Your task to perform on an android device: uninstall "Messenger Lite" Image 0: 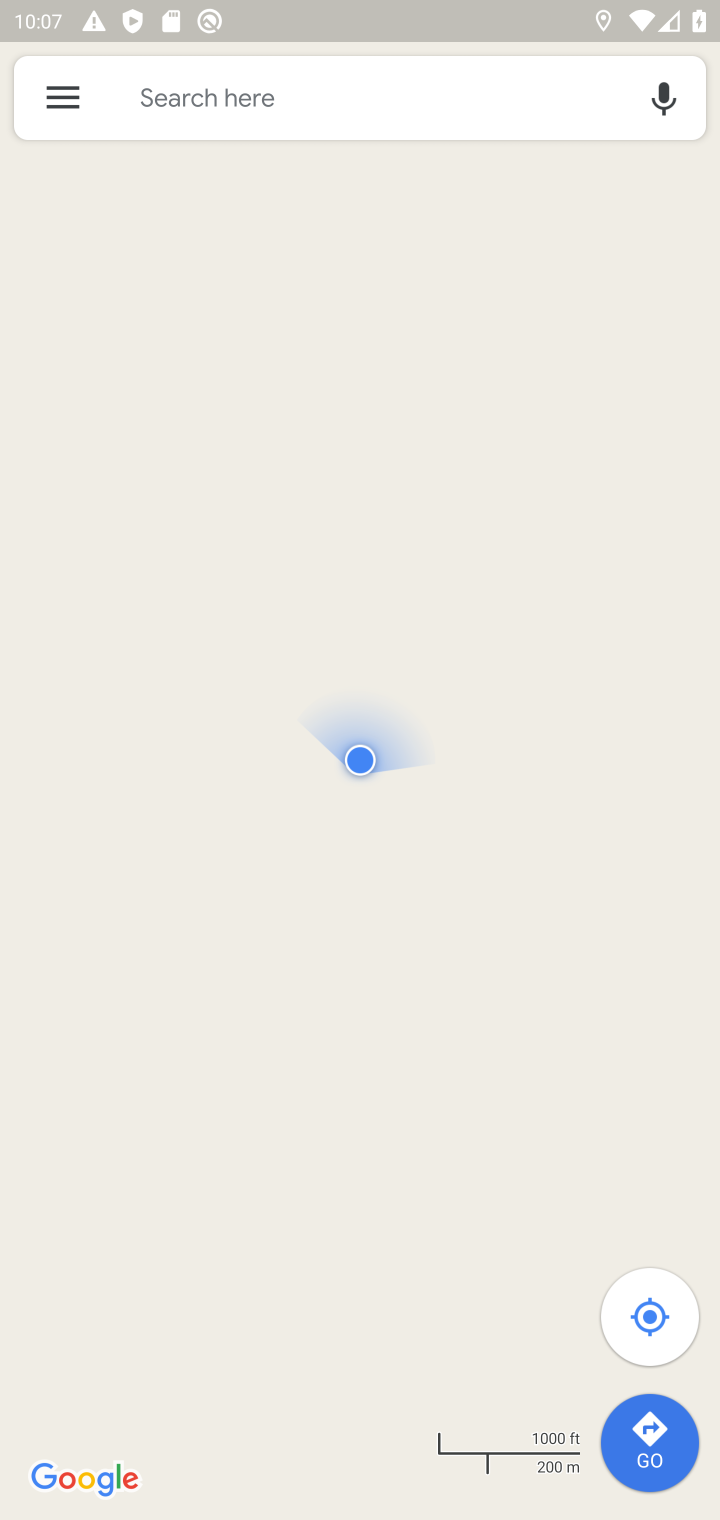
Step 0: press home button
Your task to perform on an android device: uninstall "Messenger Lite" Image 1: 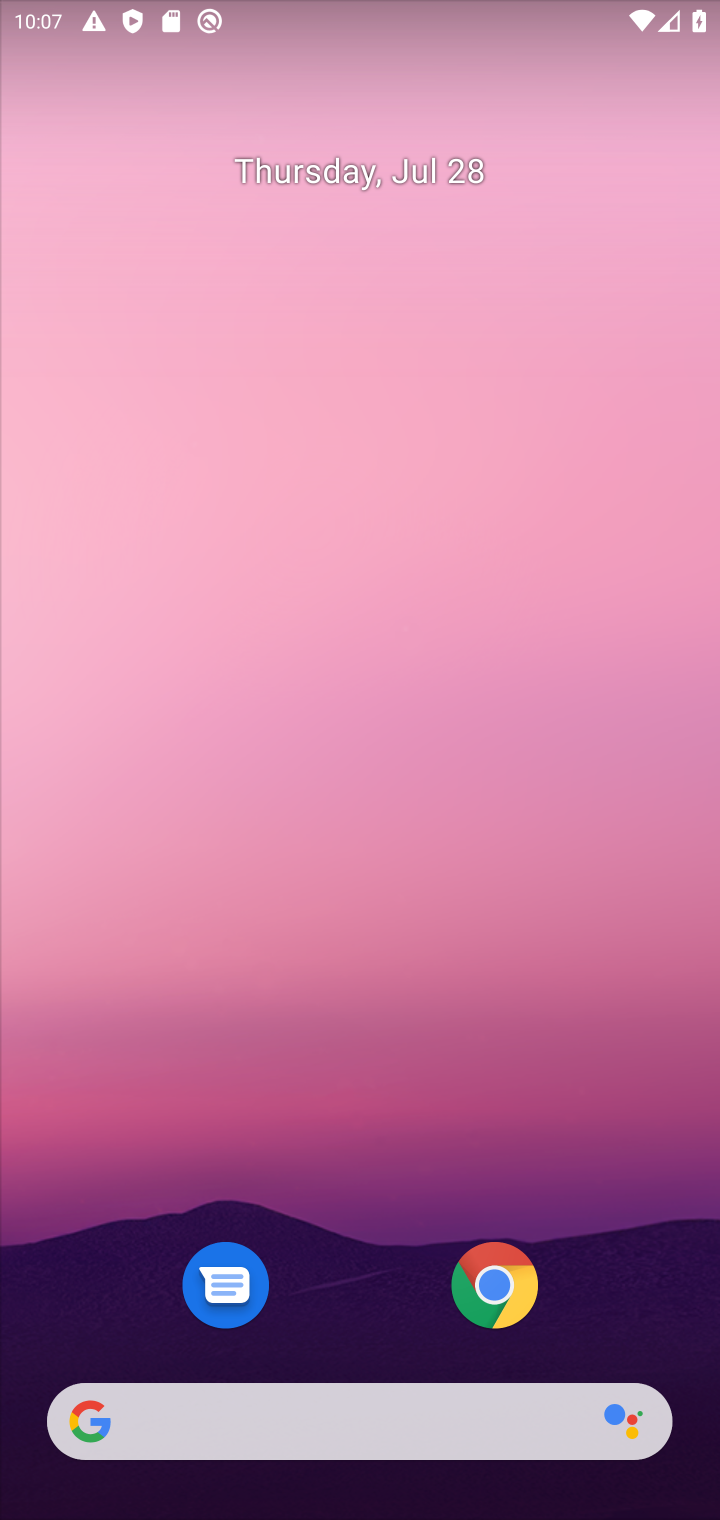
Step 1: drag from (335, 1421) to (369, 74)
Your task to perform on an android device: uninstall "Messenger Lite" Image 2: 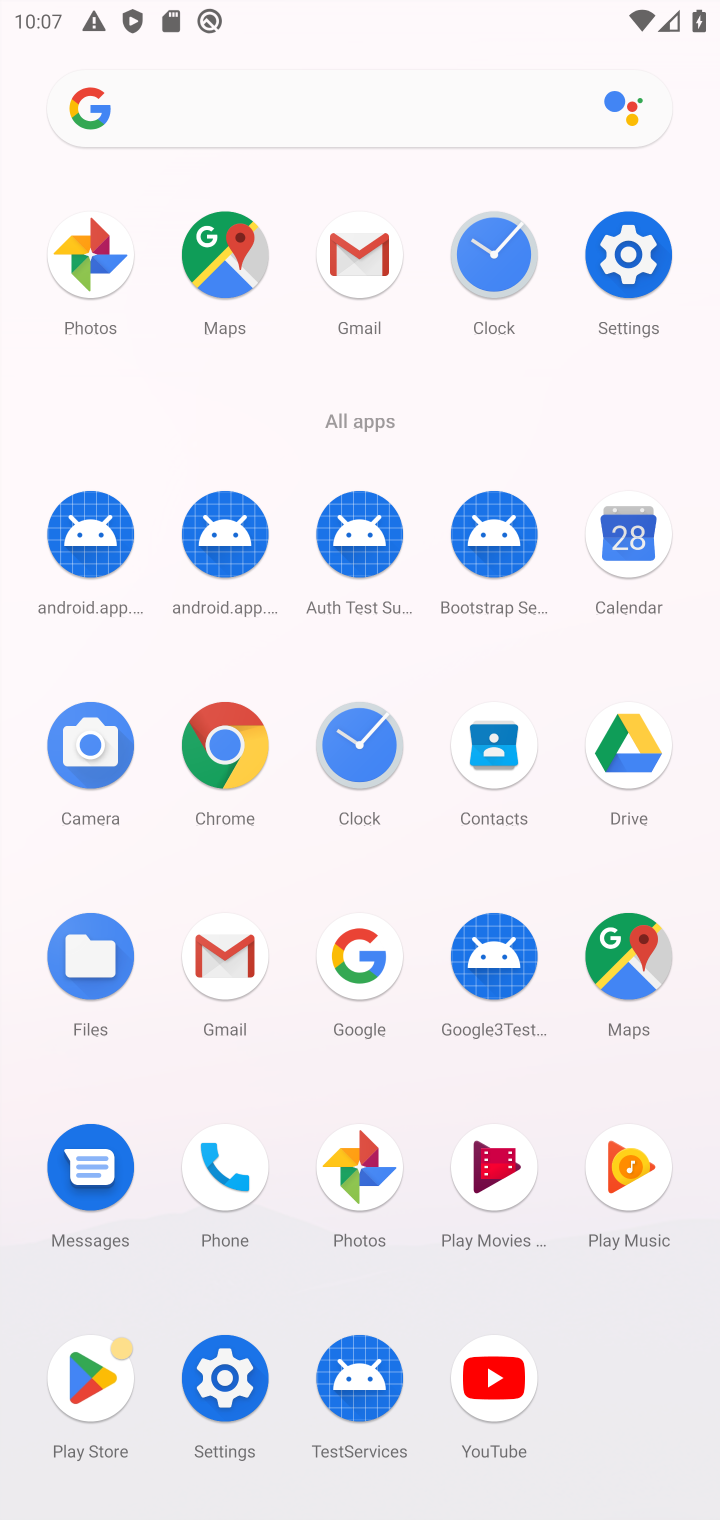
Step 2: click (100, 1374)
Your task to perform on an android device: uninstall "Messenger Lite" Image 3: 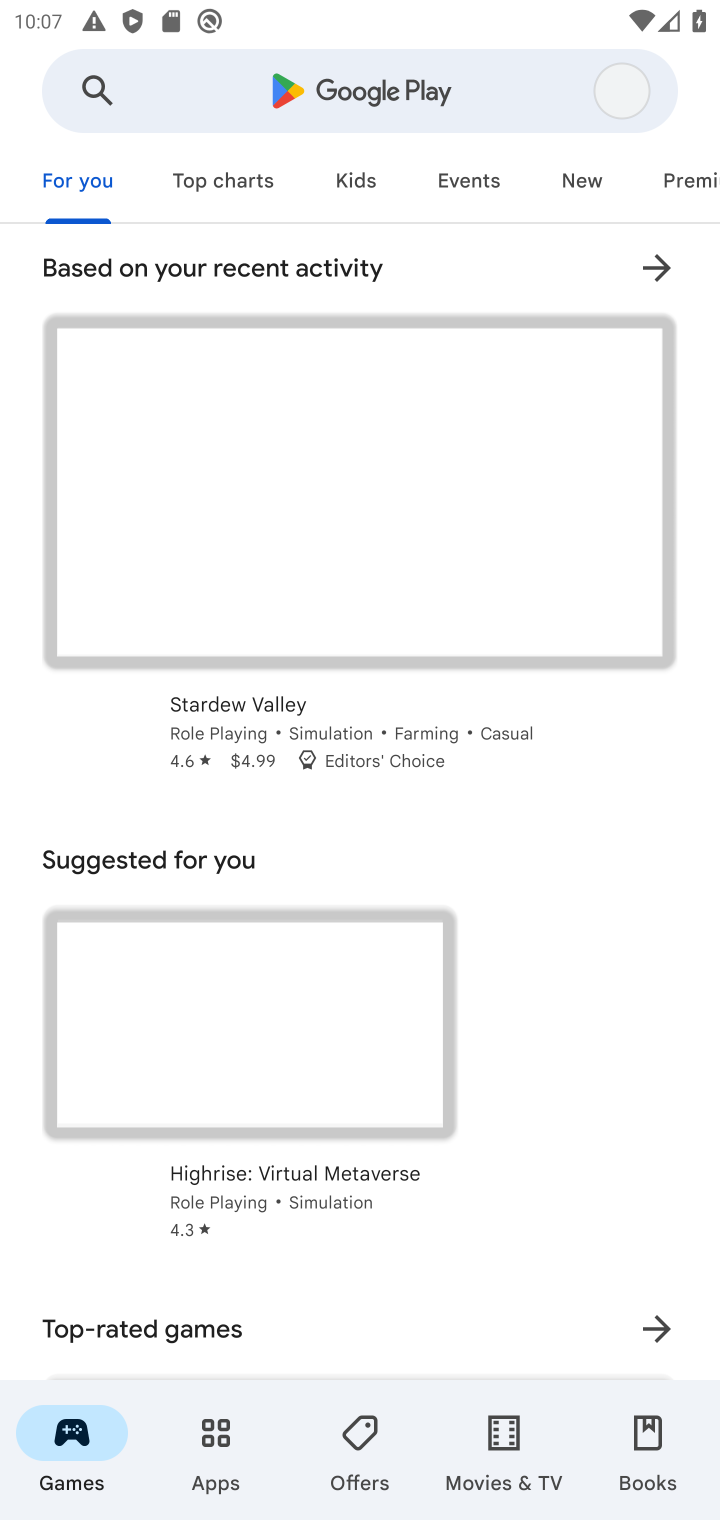
Step 3: click (404, 89)
Your task to perform on an android device: uninstall "Messenger Lite" Image 4: 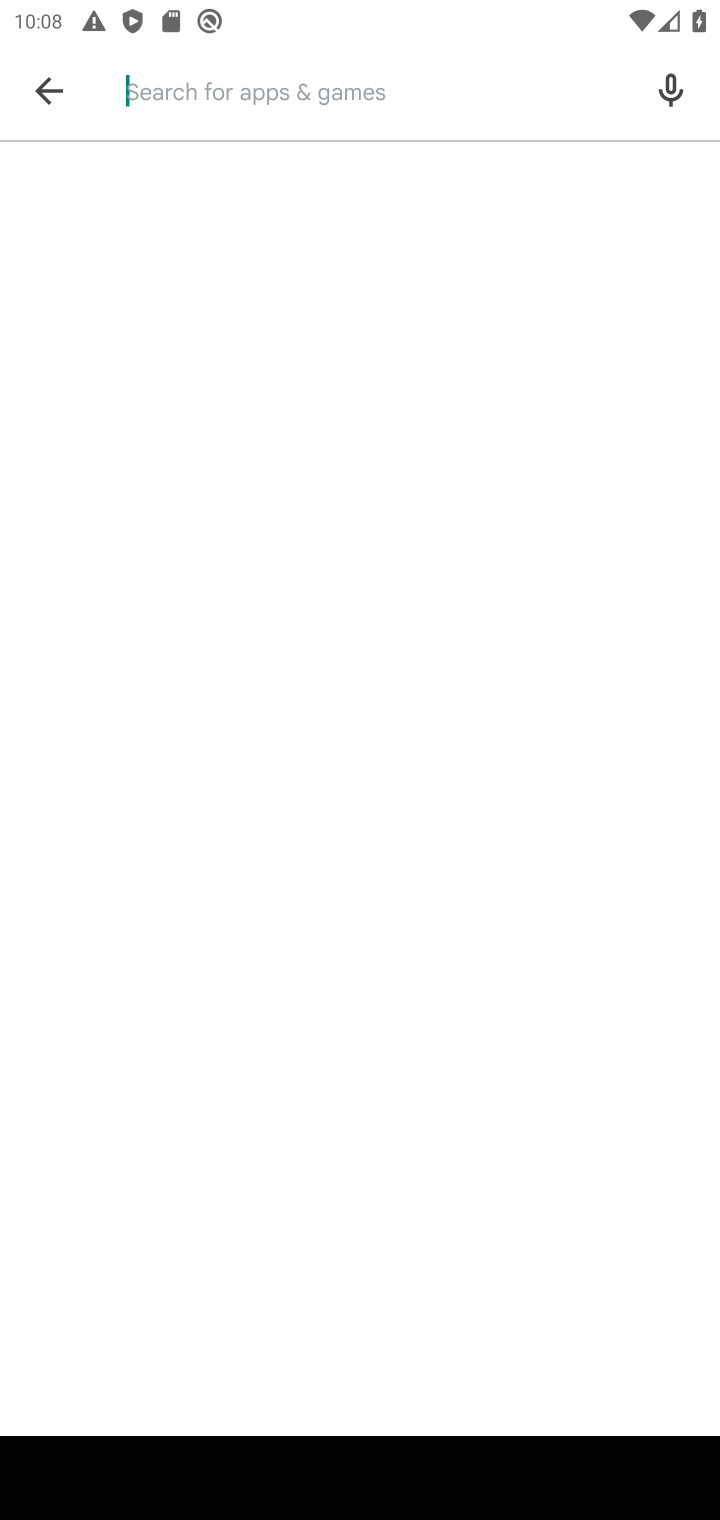
Step 4: type "Messenger Lite"
Your task to perform on an android device: uninstall "Messenger Lite" Image 5: 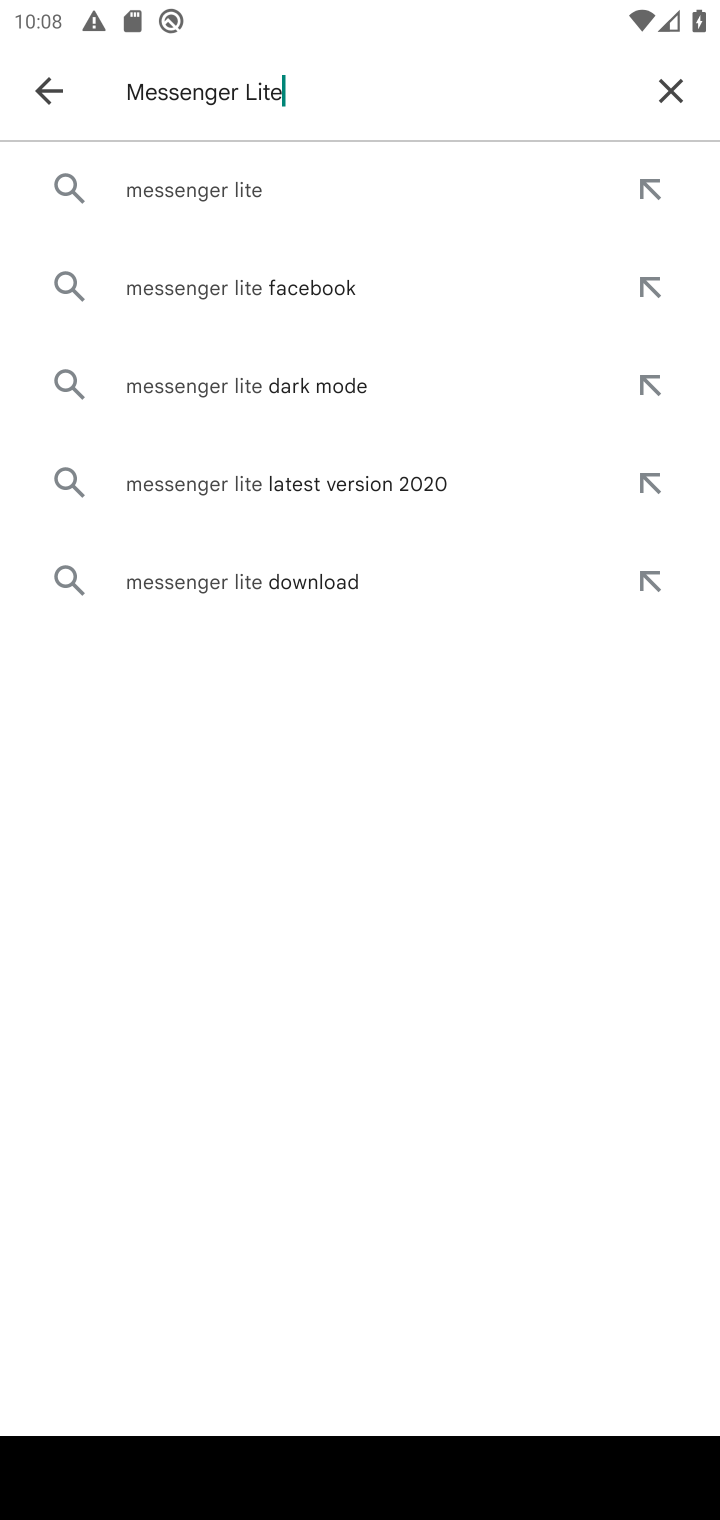
Step 5: click (242, 189)
Your task to perform on an android device: uninstall "Messenger Lite" Image 6: 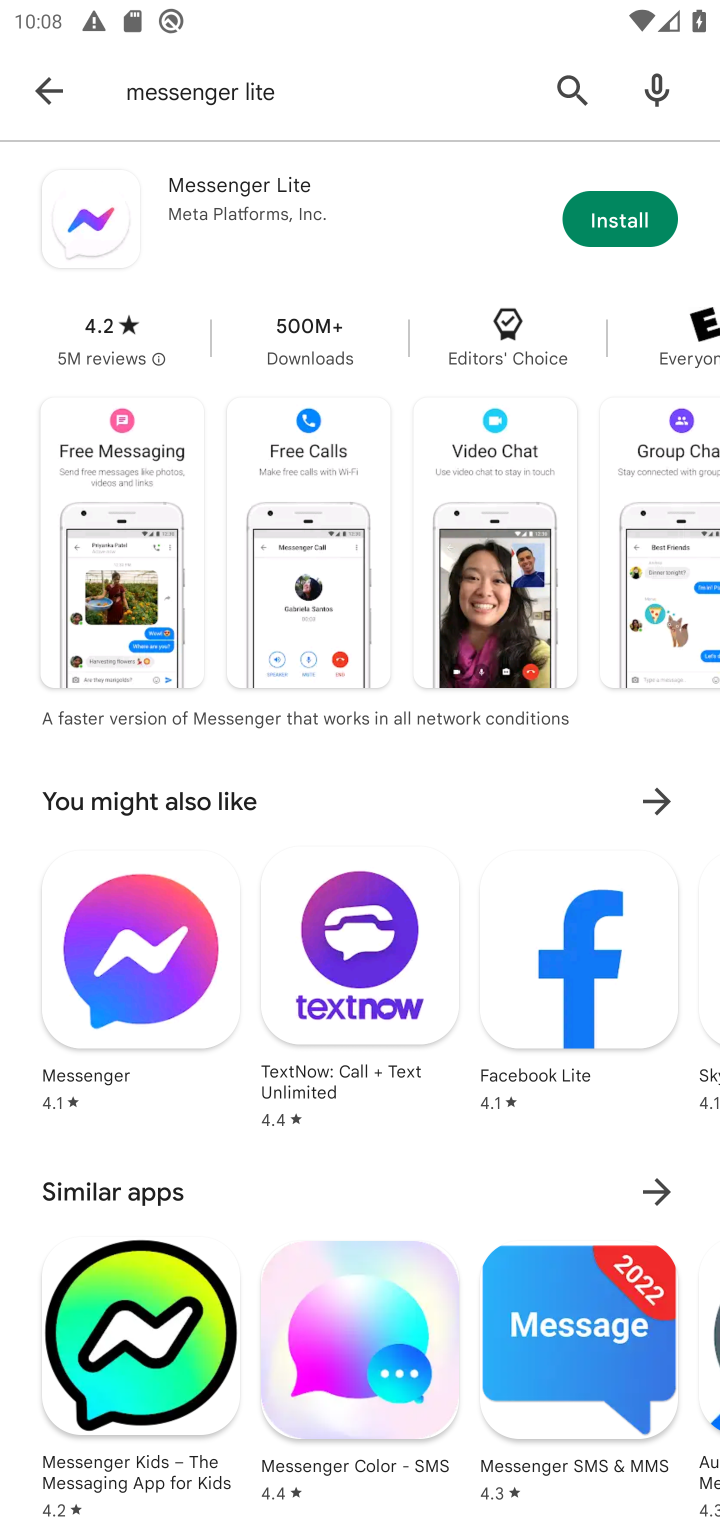
Step 6: task complete